Your task to perform on an android device: Open calendar and show me the second week of next month Image 0: 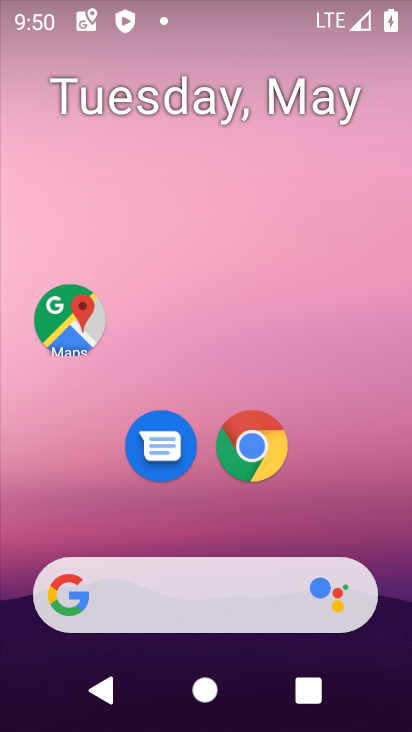
Step 0: drag from (233, 598) to (212, 123)
Your task to perform on an android device: Open calendar and show me the second week of next month Image 1: 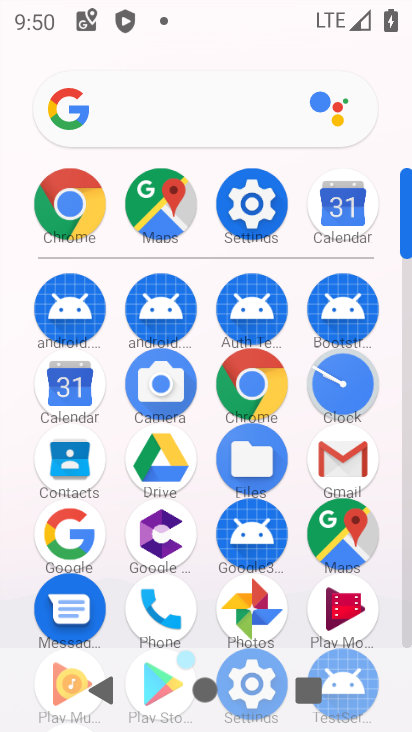
Step 1: click (59, 397)
Your task to perform on an android device: Open calendar and show me the second week of next month Image 2: 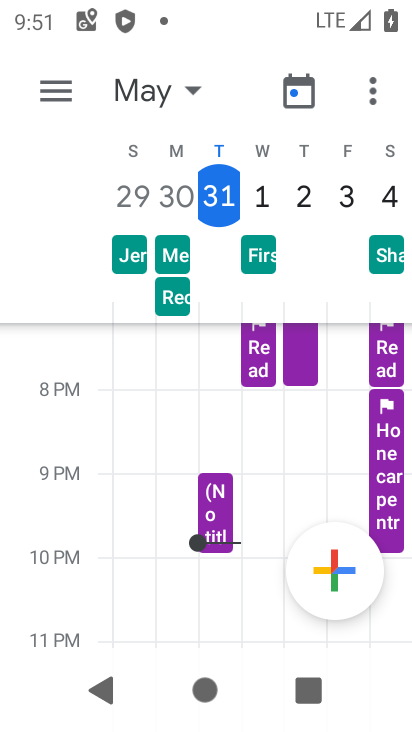
Step 2: click (59, 93)
Your task to perform on an android device: Open calendar and show me the second week of next month Image 3: 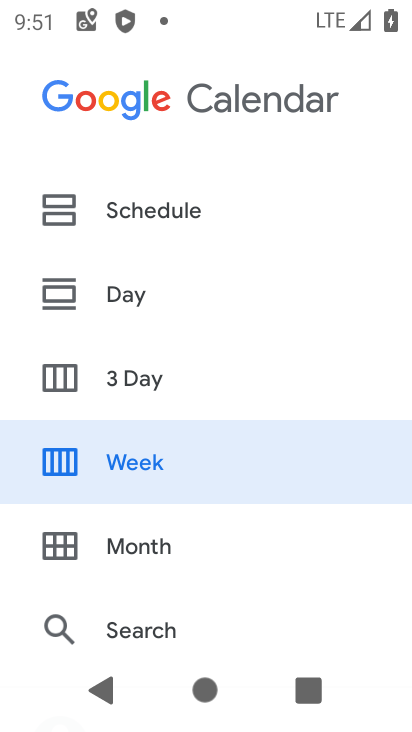
Step 3: click (138, 544)
Your task to perform on an android device: Open calendar and show me the second week of next month Image 4: 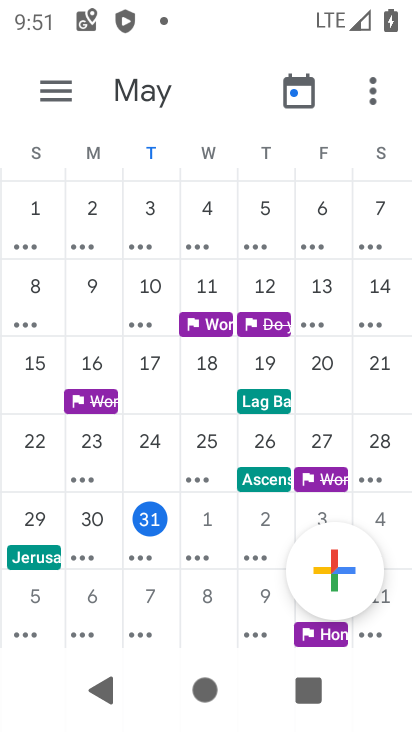
Step 4: task complete